Your task to perform on an android device: check storage Image 0: 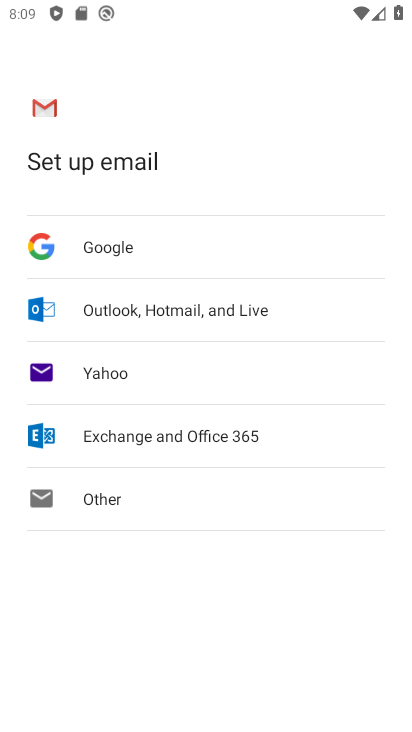
Step 0: press back button
Your task to perform on an android device: check storage Image 1: 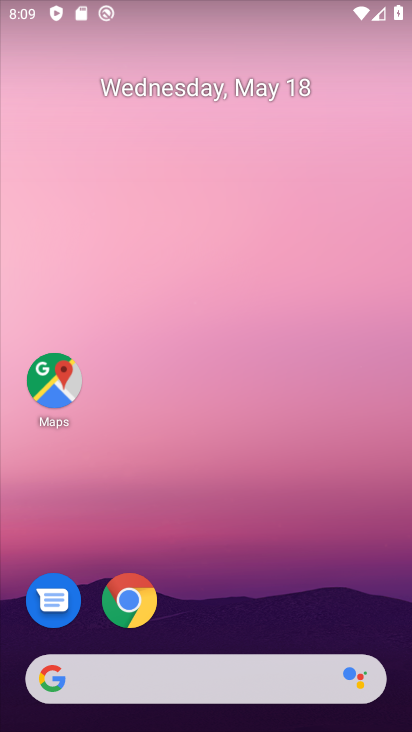
Step 1: drag from (253, 603) to (308, 19)
Your task to perform on an android device: check storage Image 2: 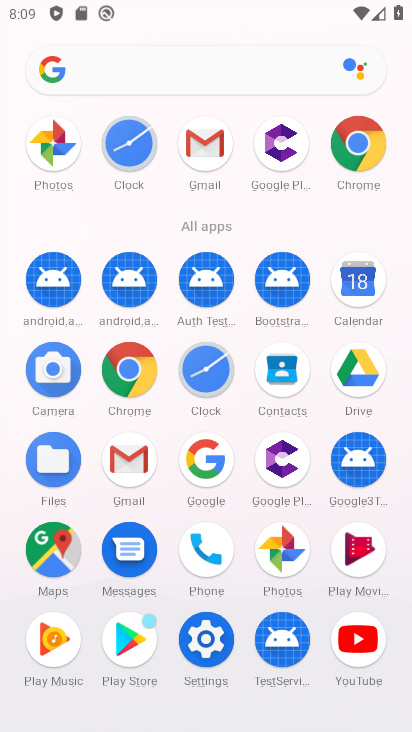
Step 2: click (211, 656)
Your task to perform on an android device: check storage Image 3: 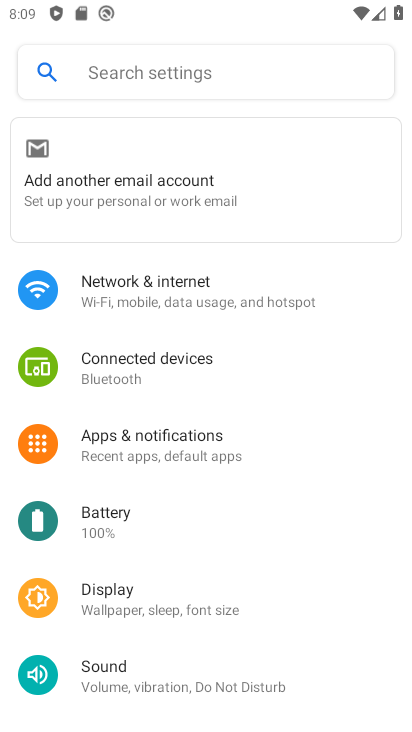
Step 3: drag from (191, 654) to (249, 217)
Your task to perform on an android device: check storage Image 4: 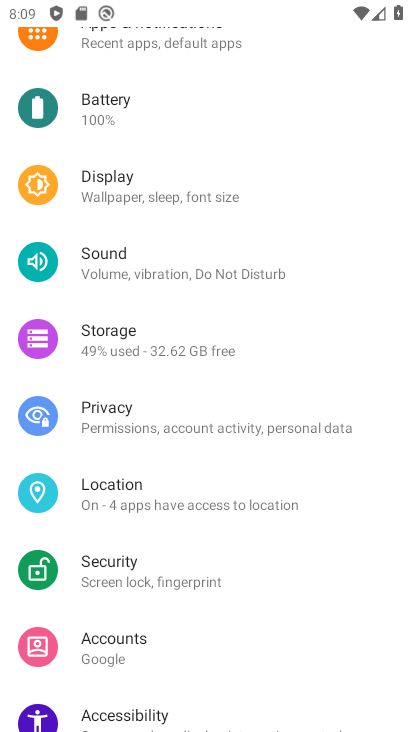
Step 4: click (102, 319)
Your task to perform on an android device: check storage Image 5: 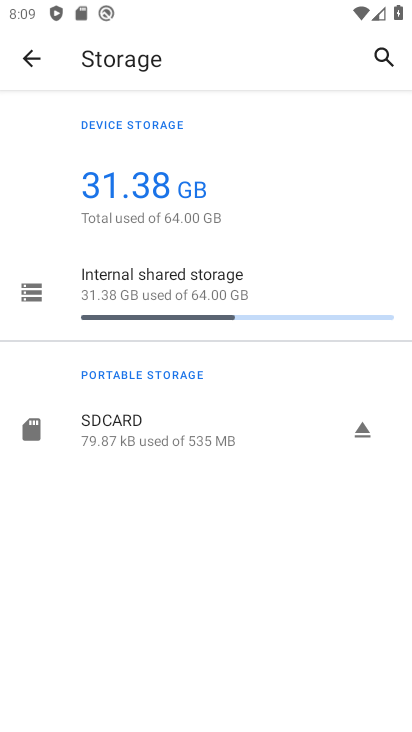
Step 5: task complete